Your task to perform on an android device: open app "Pluto TV - Live TV and Movies" Image 0: 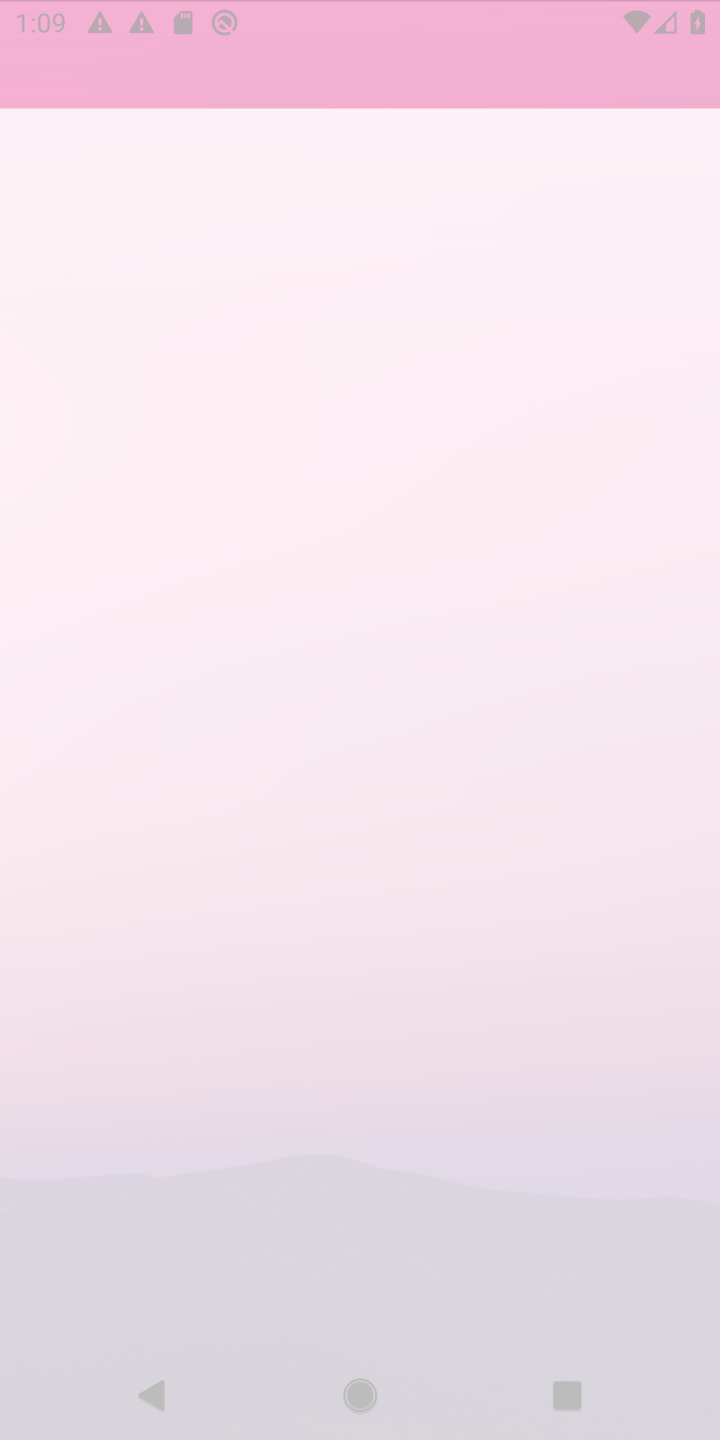
Step 0: press home button
Your task to perform on an android device: open app "Pluto TV - Live TV and Movies" Image 1: 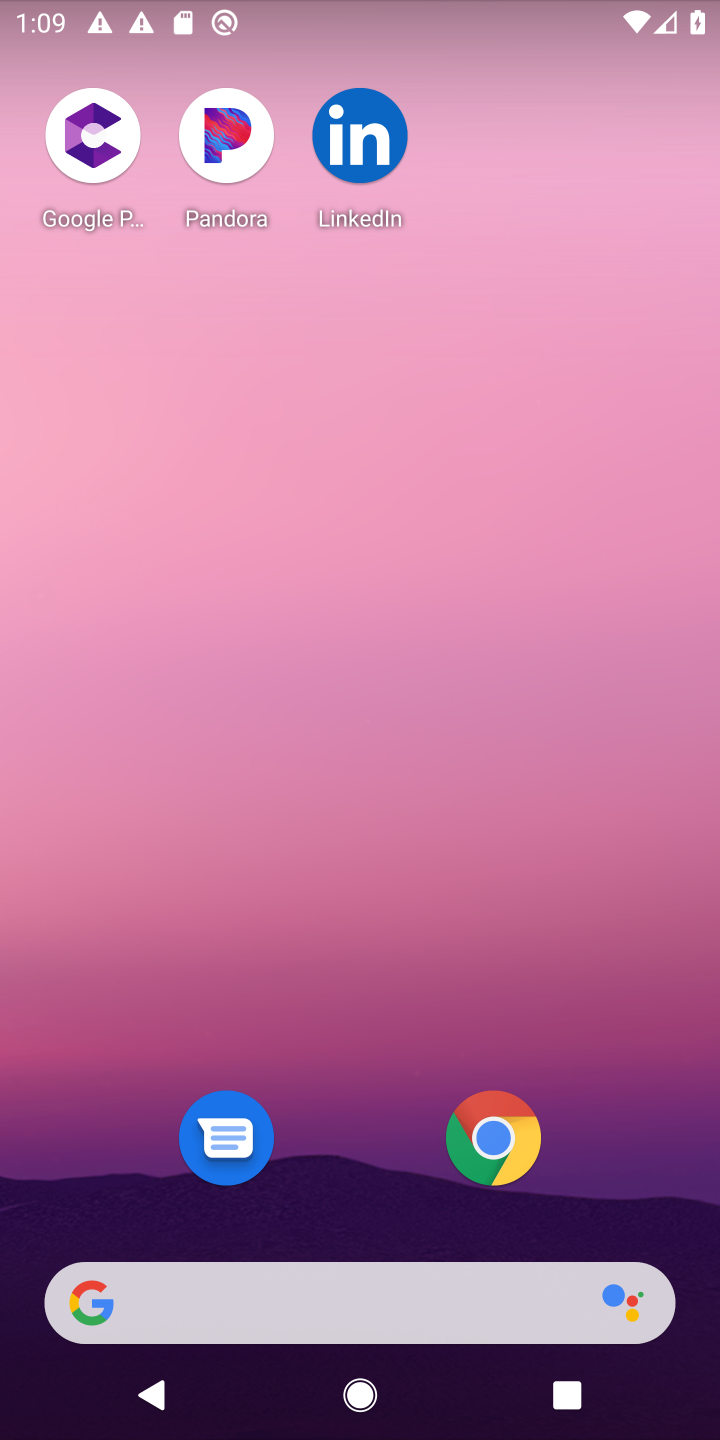
Step 1: drag from (607, 1068) to (628, 150)
Your task to perform on an android device: open app "Pluto TV - Live TV and Movies" Image 2: 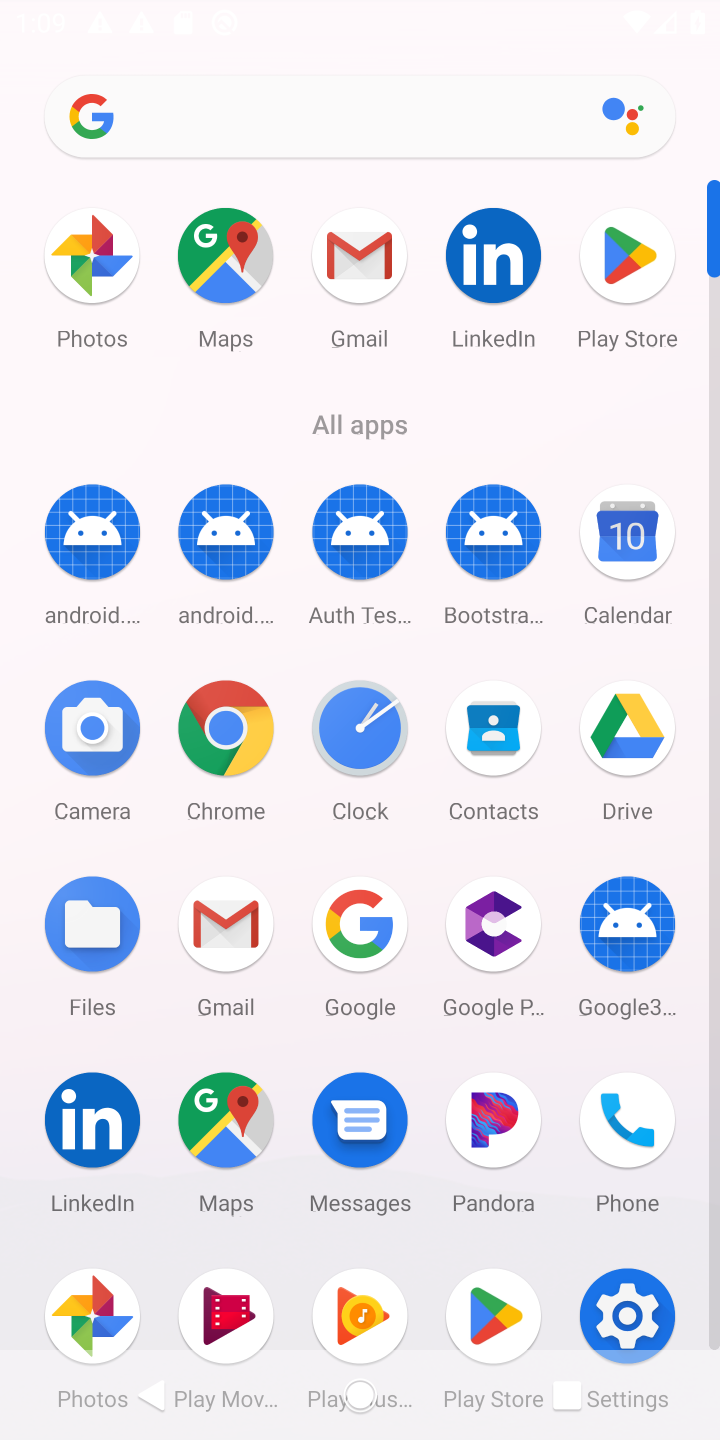
Step 2: click (627, 254)
Your task to perform on an android device: open app "Pluto TV - Live TV and Movies" Image 3: 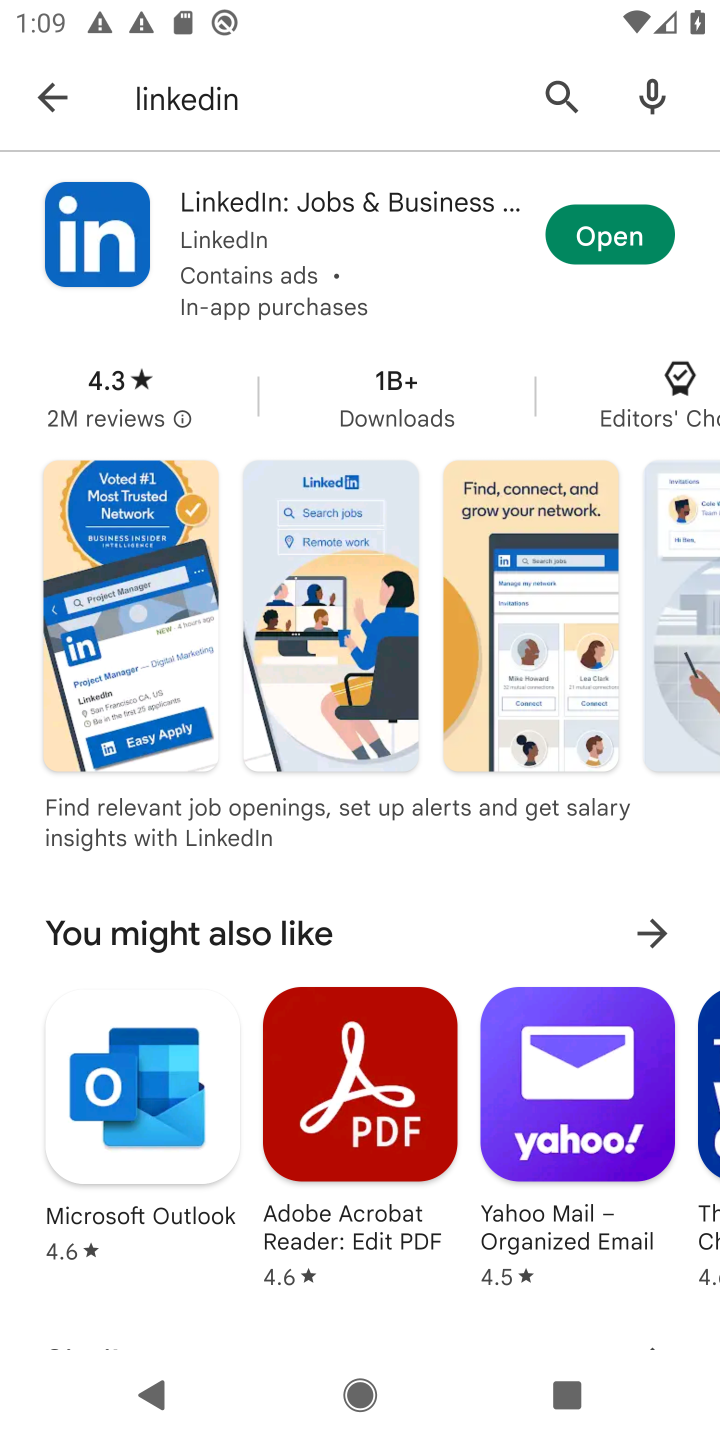
Step 3: click (562, 96)
Your task to perform on an android device: open app "Pluto TV - Live TV and Movies" Image 4: 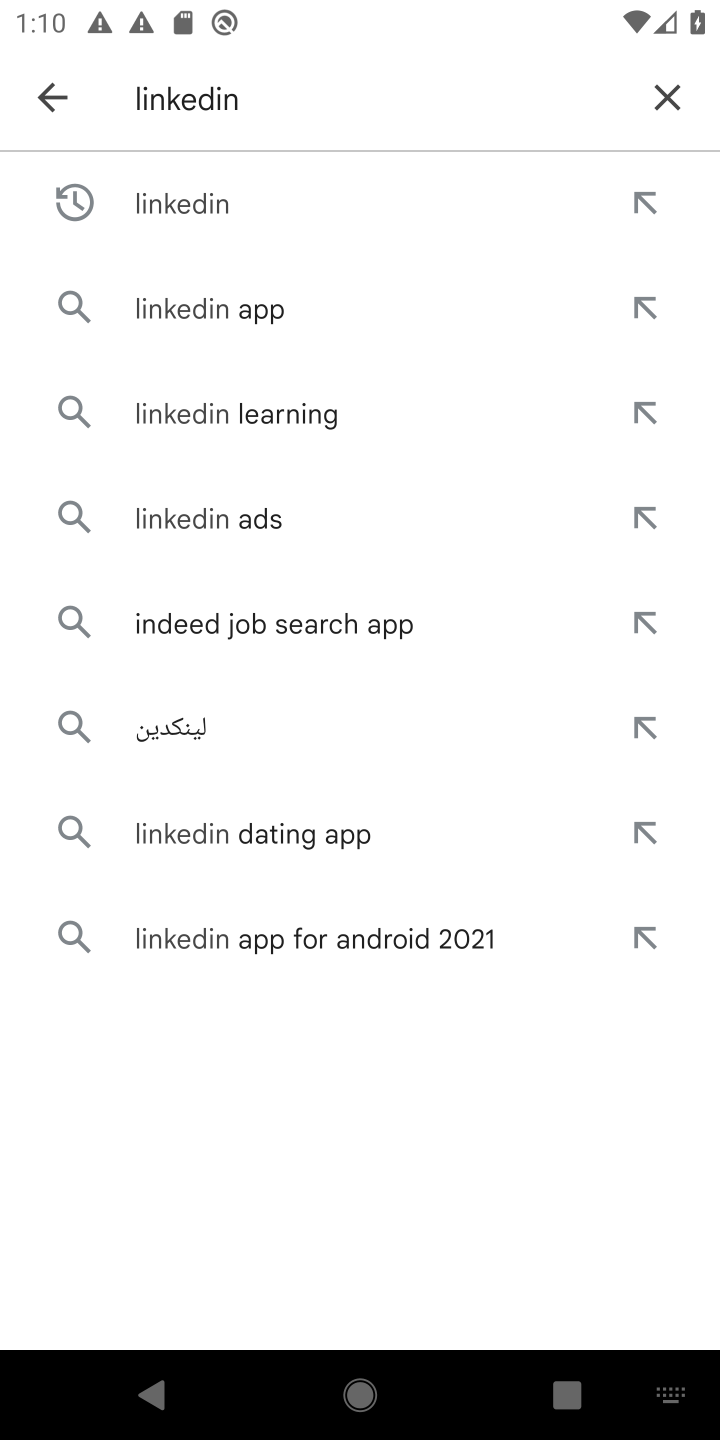
Step 4: click (661, 94)
Your task to perform on an android device: open app "Pluto TV - Live TV and Movies" Image 5: 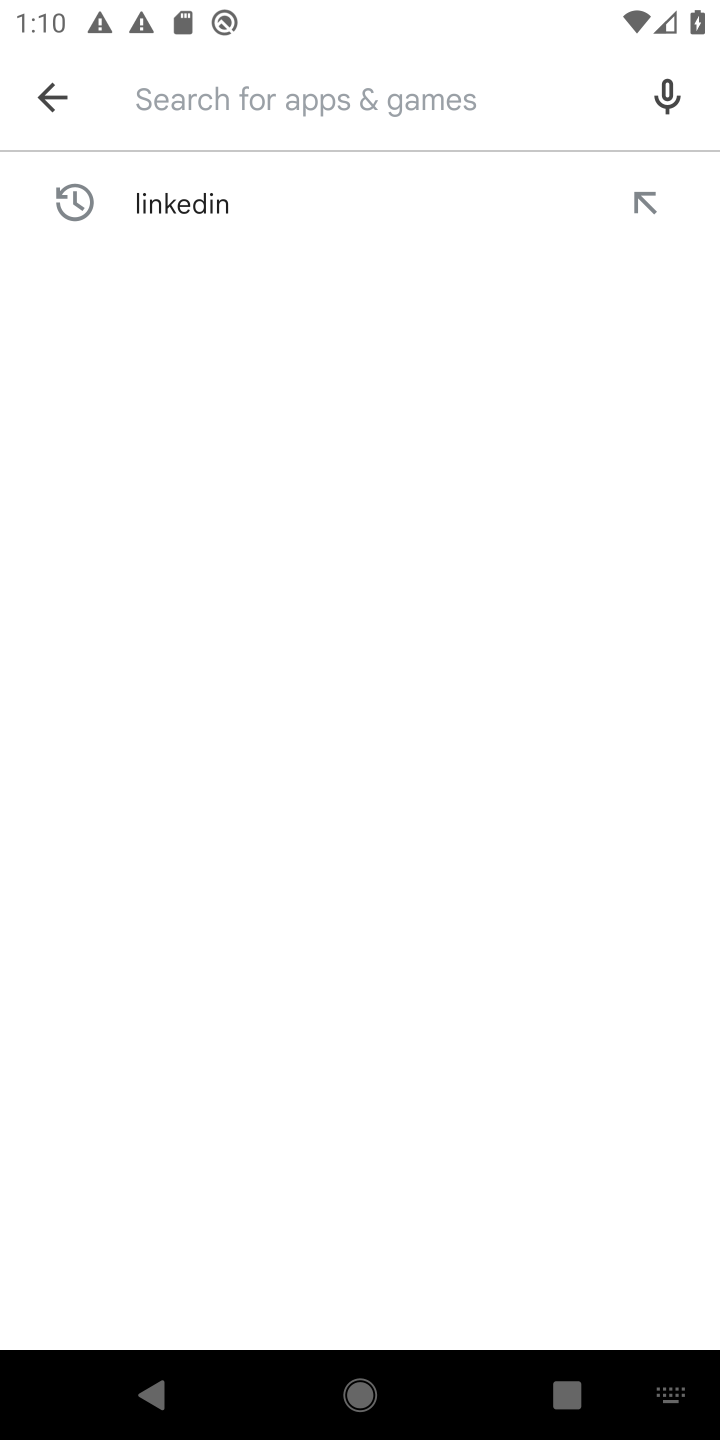
Step 5: type "Pluto TV - Live TV and Movies"
Your task to perform on an android device: open app "Pluto TV - Live TV and Movies" Image 6: 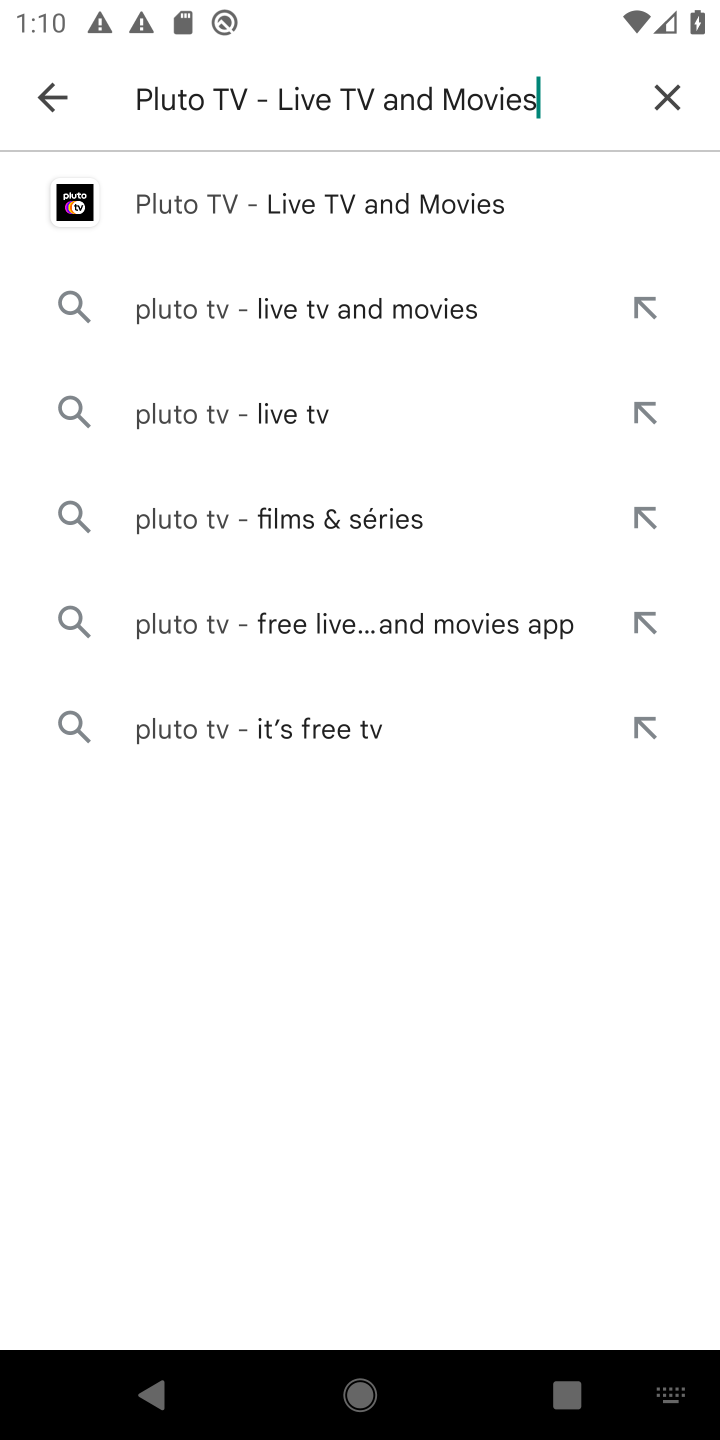
Step 6: press enter
Your task to perform on an android device: open app "Pluto TV - Live TV and Movies" Image 7: 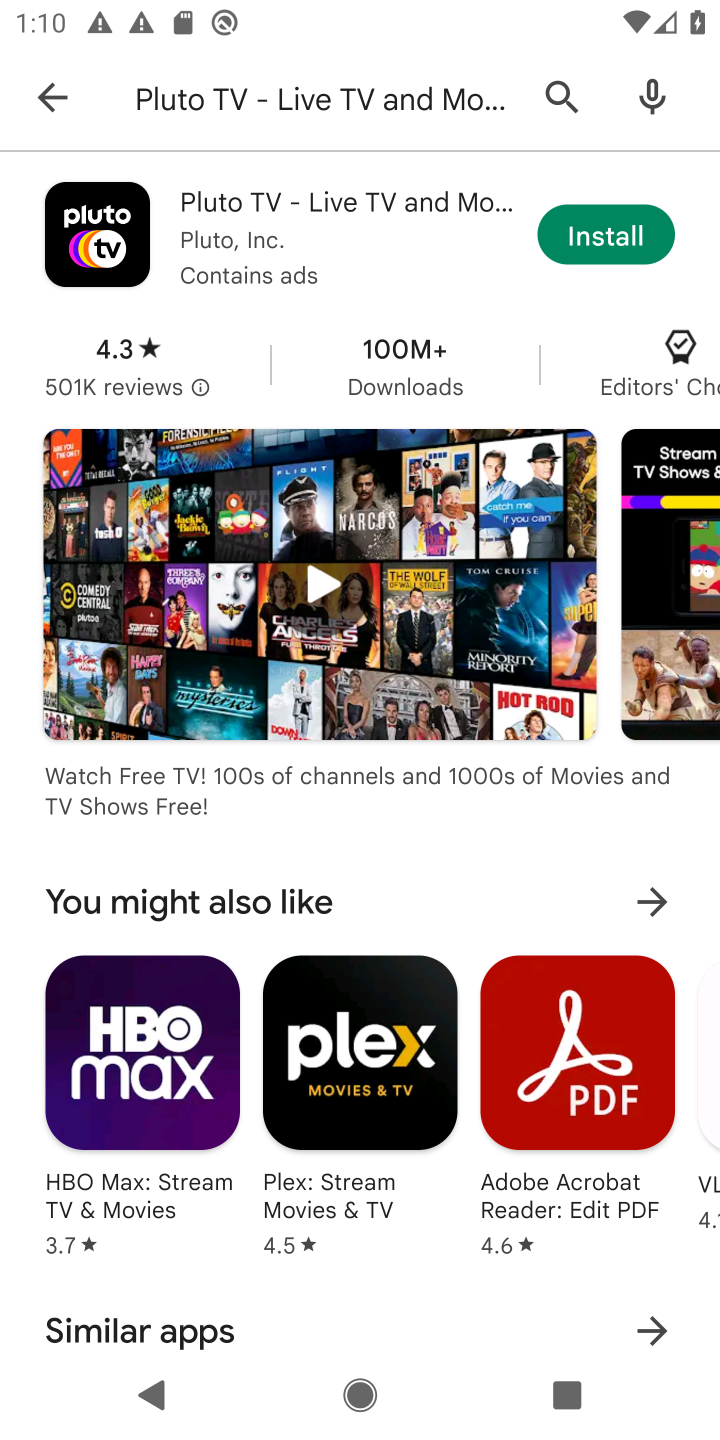
Step 7: task complete